Your task to perform on an android device: toggle pop-ups in chrome Image 0: 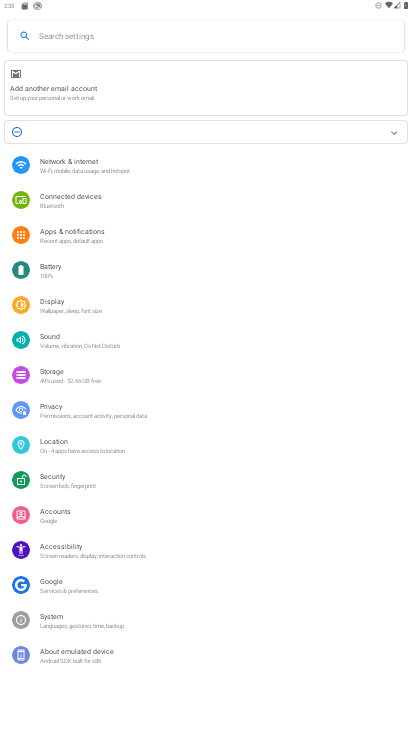
Step 0: press home button
Your task to perform on an android device: toggle pop-ups in chrome Image 1: 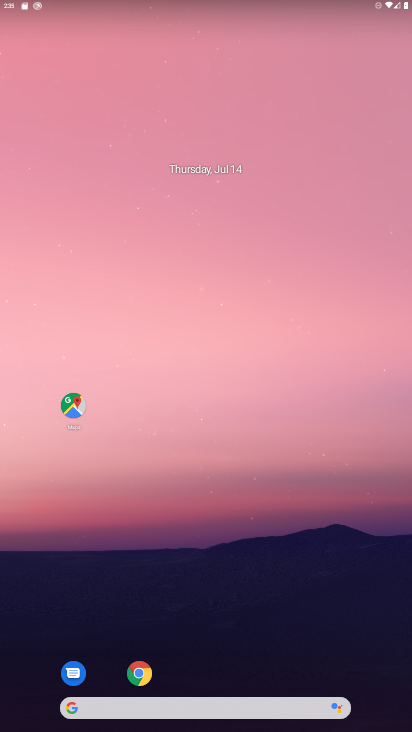
Step 1: drag from (221, 652) to (347, 212)
Your task to perform on an android device: toggle pop-ups in chrome Image 2: 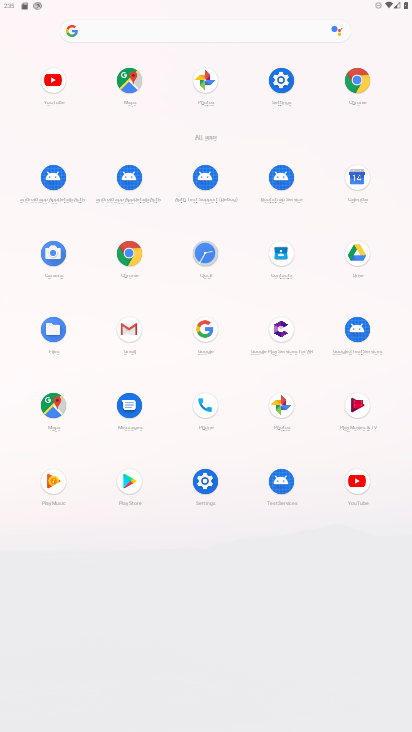
Step 2: click (135, 262)
Your task to perform on an android device: toggle pop-ups in chrome Image 3: 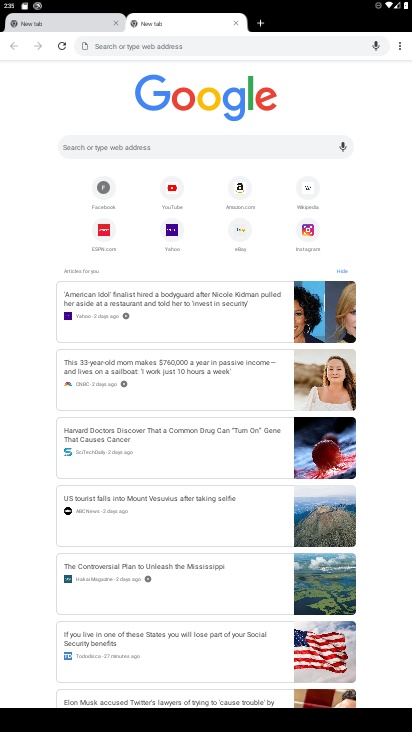
Step 3: drag from (392, 48) to (332, 206)
Your task to perform on an android device: toggle pop-ups in chrome Image 4: 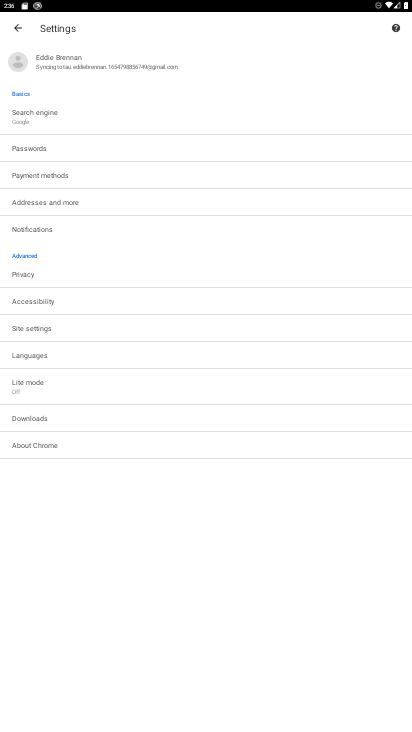
Step 4: click (59, 334)
Your task to perform on an android device: toggle pop-ups in chrome Image 5: 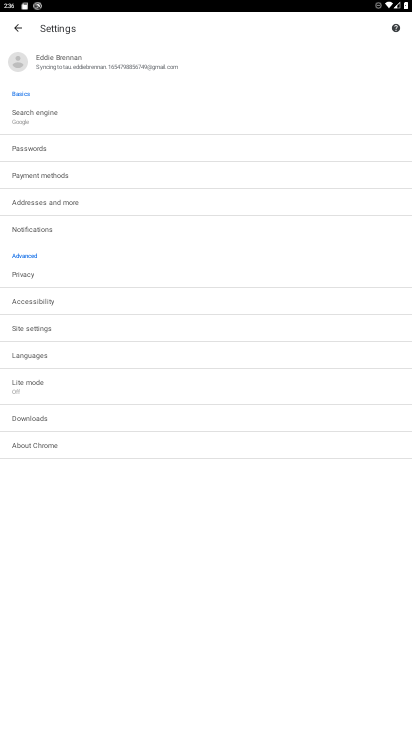
Step 5: click (72, 322)
Your task to perform on an android device: toggle pop-ups in chrome Image 6: 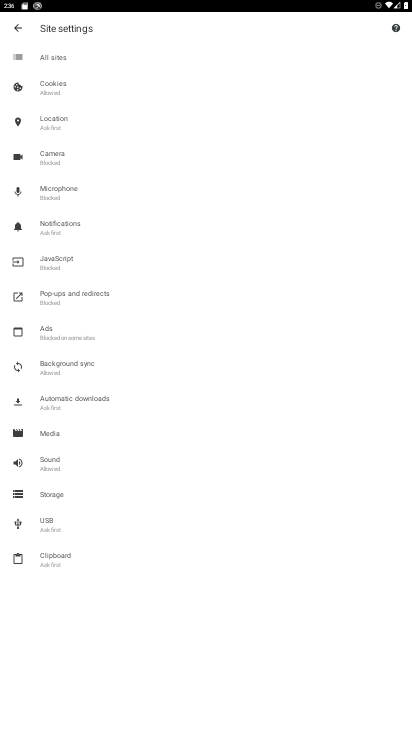
Step 6: click (100, 301)
Your task to perform on an android device: toggle pop-ups in chrome Image 7: 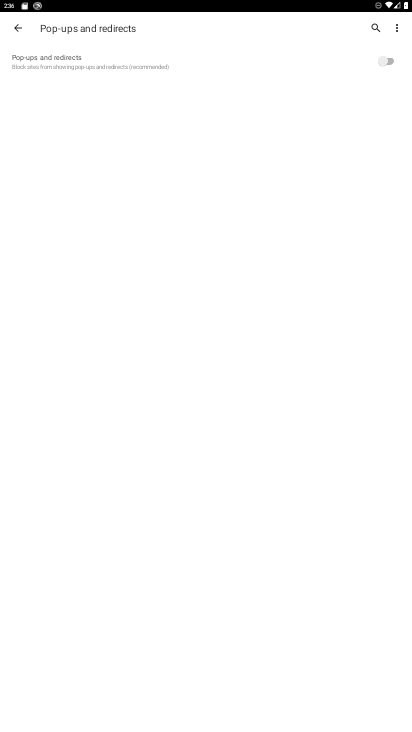
Step 7: click (390, 52)
Your task to perform on an android device: toggle pop-ups in chrome Image 8: 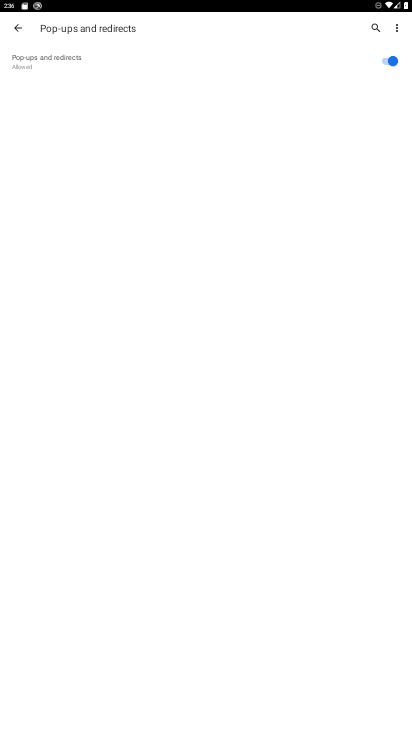
Step 8: task complete